Your task to perform on an android device: check the backup settings in the google photos Image 0: 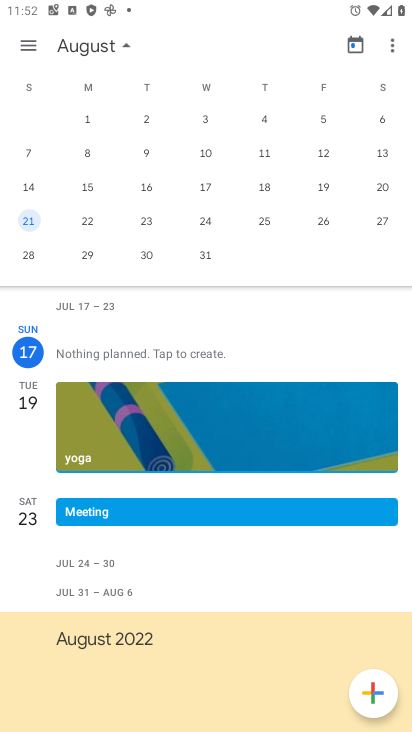
Step 0: press home button
Your task to perform on an android device: check the backup settings in the google photos Image 1: 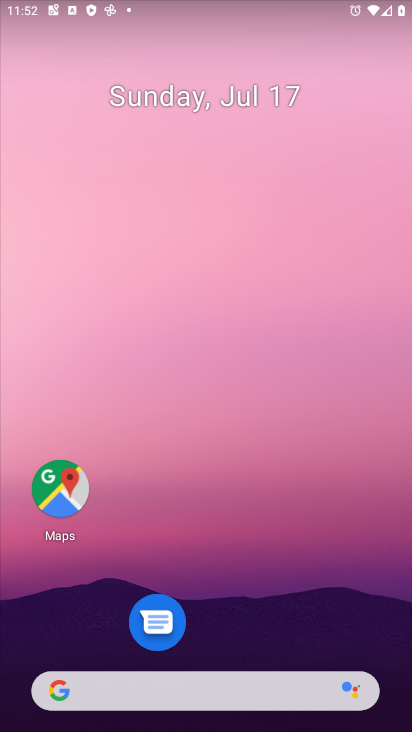
Step 1: drag from (205, 659) to (273, 88)
Your task to perform on an android device: check the backup settings in the google photos Image 2: 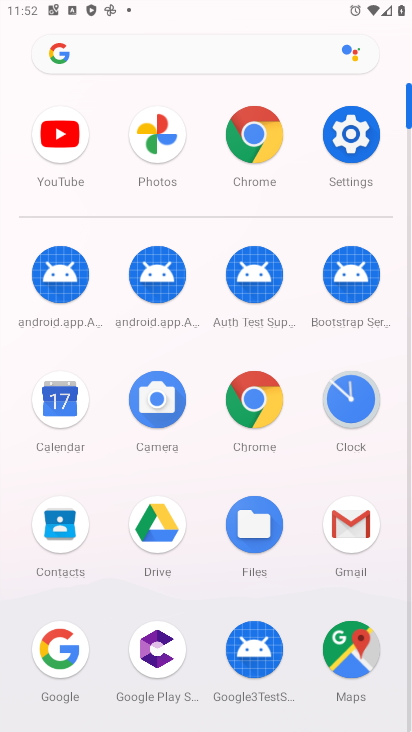
Step 2: click (159, 123)
Your task to perform on an android device: check the backup settings in the google photos Image 3: 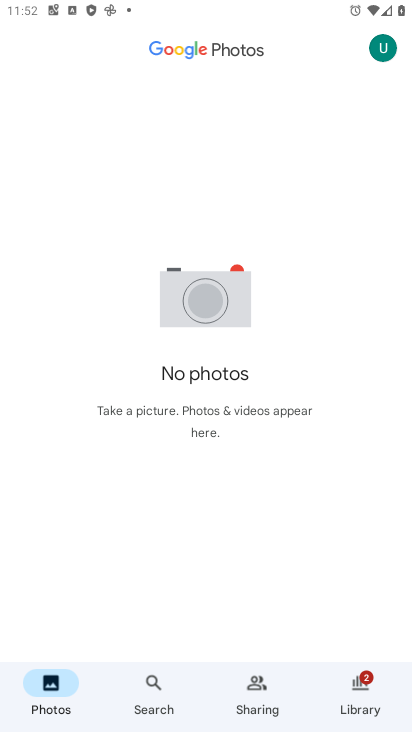
Step 3: click (388, 47)
Your task to perform on an android device: check the backup settings in the google photos Image 4: 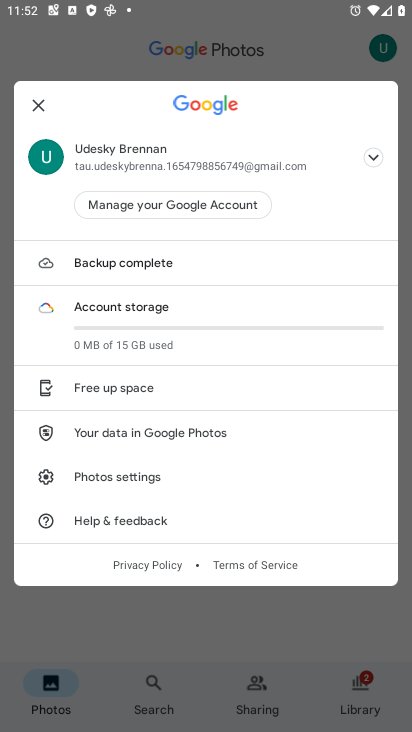
Step 4: click (132, 481)
Your task to perform on an android device: check the backup settings in the google photos Image 5: 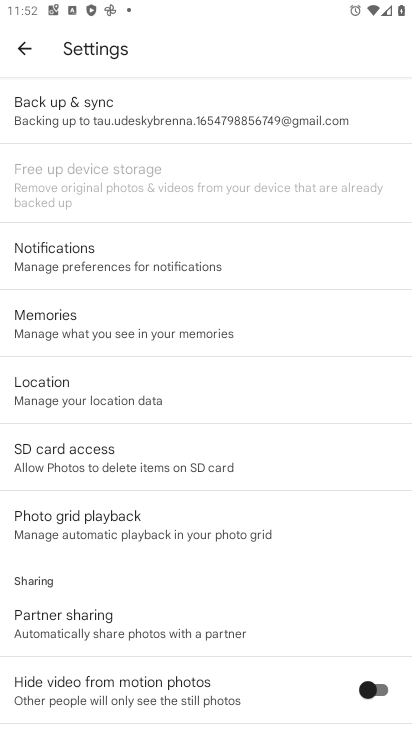
Step 5: click (220, 126)
Your task to perform on an android device: check the backup settings in the google photos Image 6: 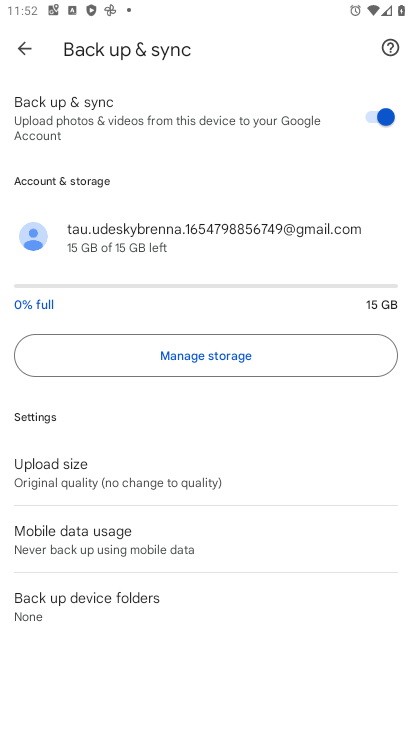
Step 6: task complete